Your task to perform on an android device: turn off airplane mode Image 0: 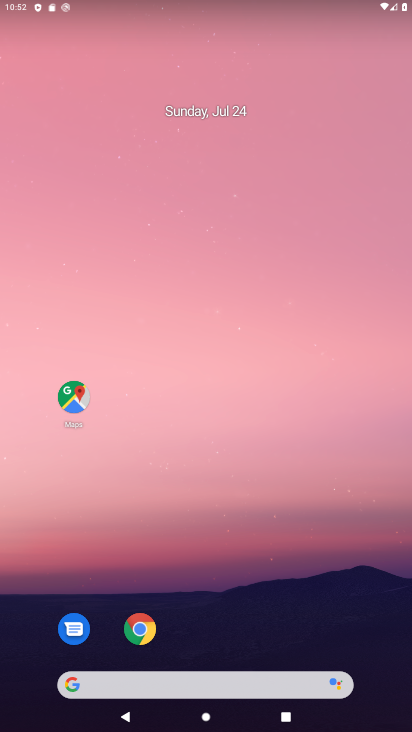
Step 0: drag from (201, 288) to (361, 660)
Your task to perform on an android device: turn off airplane mode Image 1: 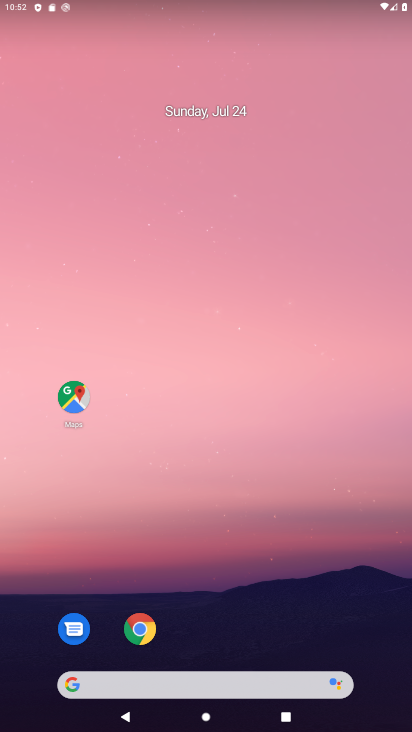
Step 1: task complete